Your task to perform on an android device: turn pop-ups off in chrome Image 0: 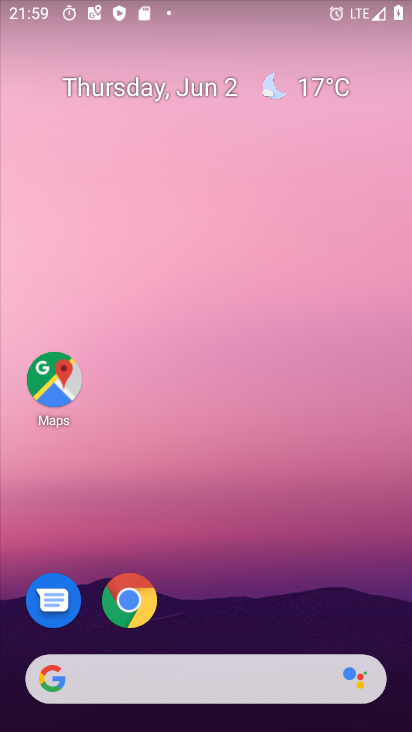
Step 0: drag from (343, 619) to (319, 200)
Your task to perform on an android device: turn pop-ups off in chrome Image 1: 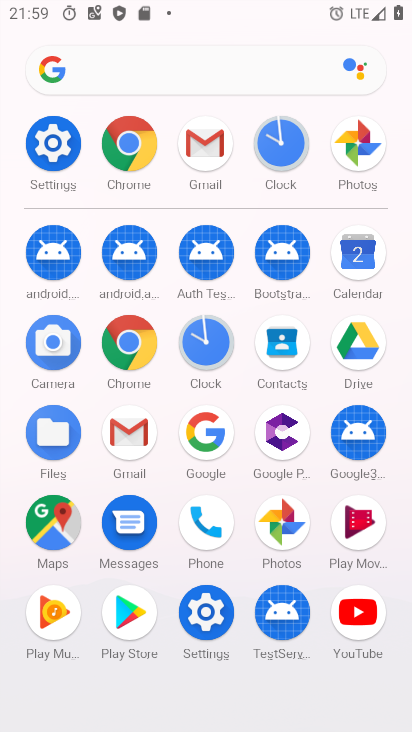
Step 1: click (144, 355)
Your task to perform on an android device: turn pop-ups off in chrome Image 2: 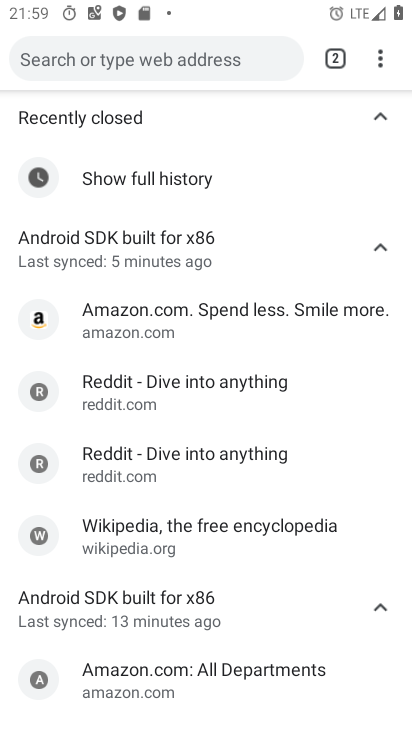
Step 2: click (385, 62)
Your task to perform on an android device: turn pop-ups off in chrome Image 3: 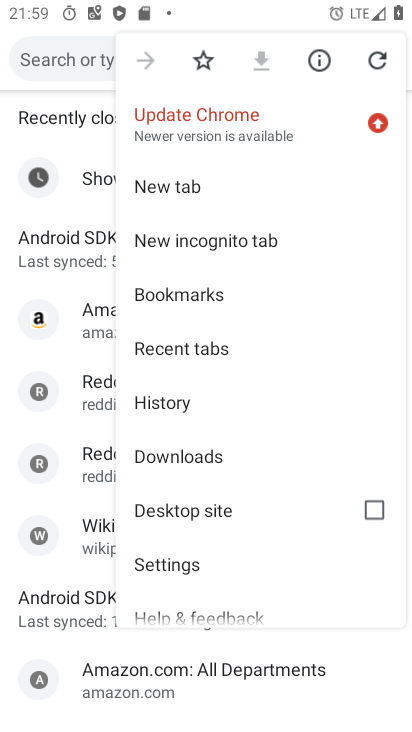
Step 3: drag from (277, 447) to (281, 366)
Your task to perform on an android device: turn pop-ups off in chrome Image 4: 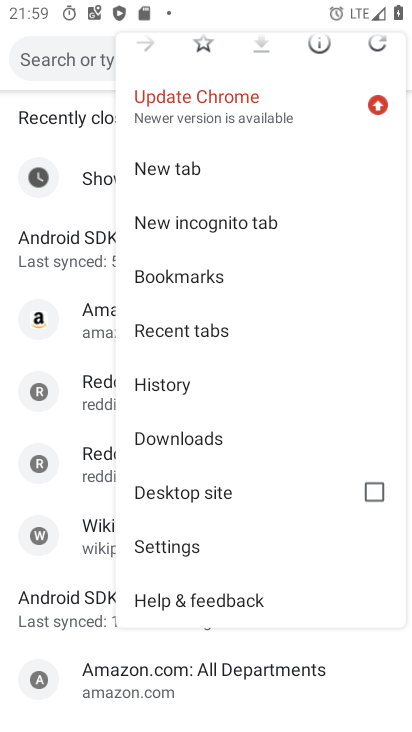
Step 4: click (188, 564)
Your task to perform on an android device: turn pop-ups off in chrome Image 5: 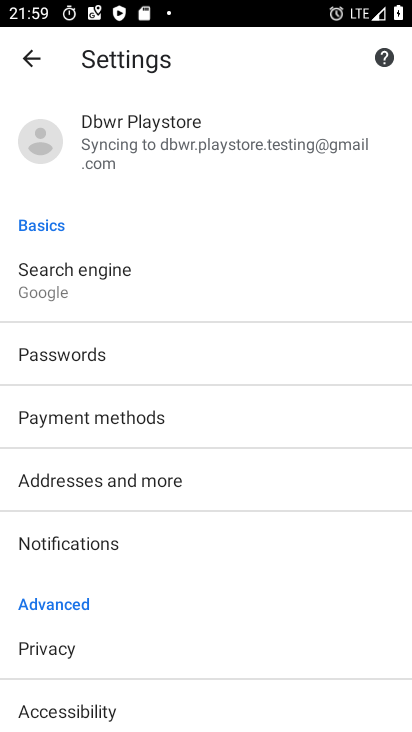
Step 5: drag from (241, 531) to (266, 474)
Your task to perform on an android device: turn pop-ups off in chrome Image 6: 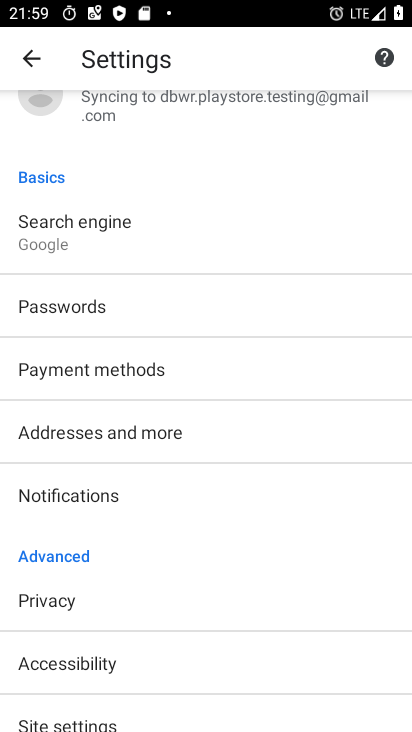
Step 6: drag from (268, 526) to (282, 428)
Your task to perform on an android device: turn pop-ups off in chrome Image 7: 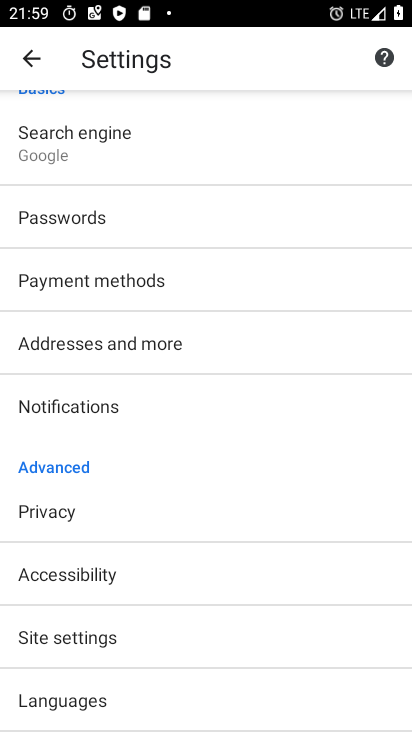
Step 7: drag from (275, 530) to (281, 477)
Your task to perform on an android device: turn pop-ups off in chrome Image 8: 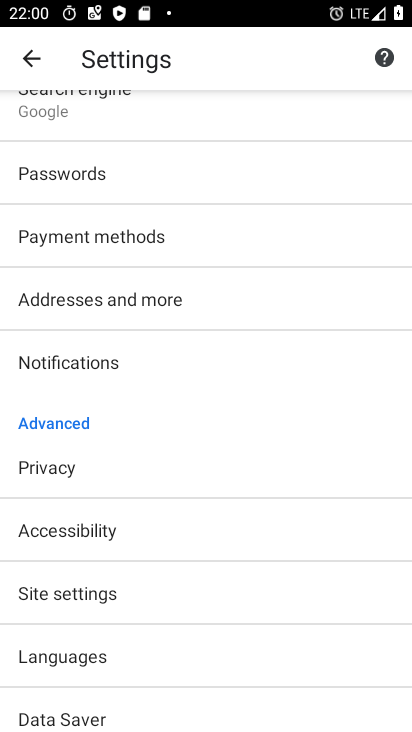
Step 8: click (211, 599)
Your task to perform on an android device: turn pop-ups off in chrome Image 9: 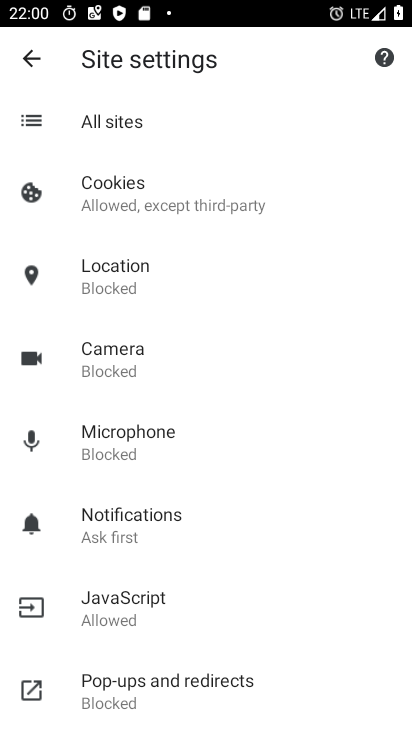
Step 9: drag from (265, 583) to (280, 457)
Your task to perform on an android device: turn pop-ups off in chrome Image 10: 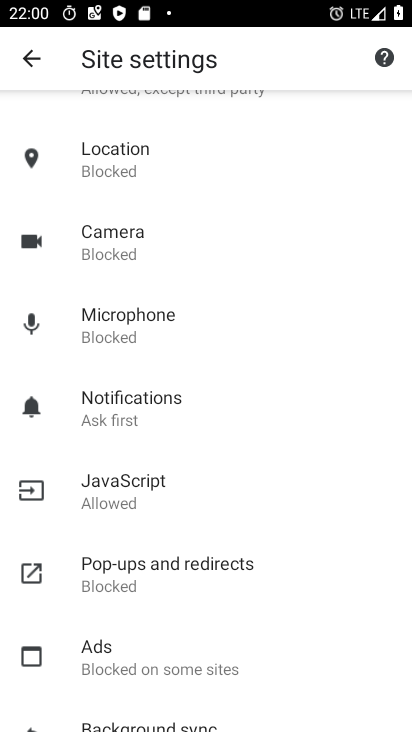
Step 10: drag from (288, 600) to (299, 465)
Your task to perform on an android device: turn pop-ups off in chrome Image 11: 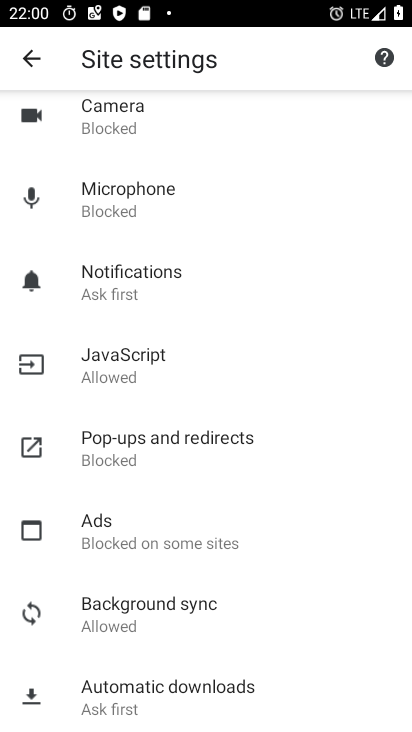
Step 11: drag from (294, 558) to (301, 520)
Your task to perform on an android device: turn pop-ups off in chrome Image 12: 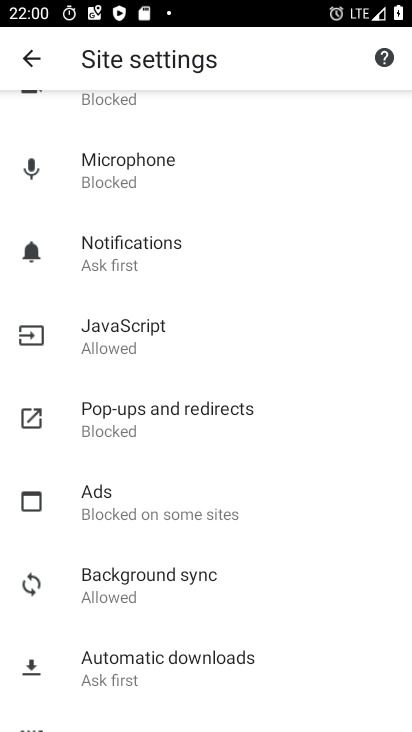
Step 12: click (309, 527)
Your task to perform on an android device: turn pop-ups off in chrome Image 13: 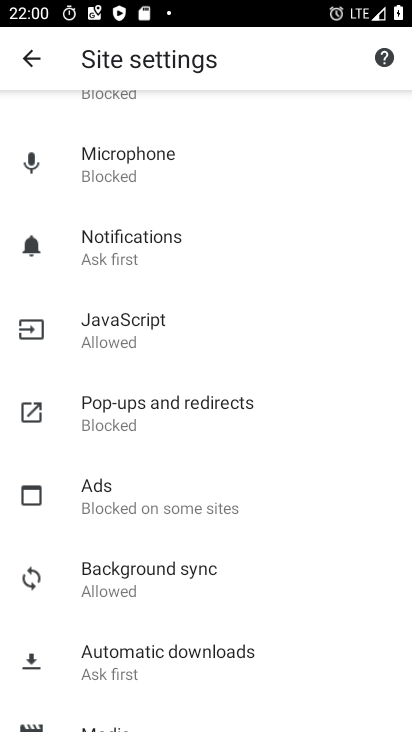
Step 13: click (202, 399)
Your task to perform on an android device: turn pop-ups off in chrome Image 14: 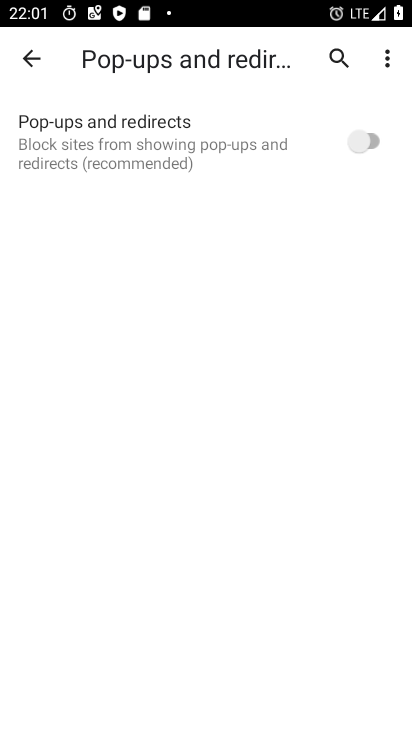
Step 14: press home button
Your task to perform on an android device: turn pop-ups off in chrome Image 15: 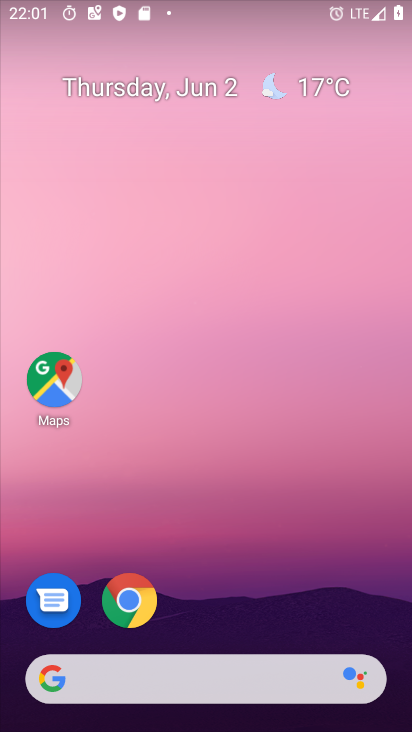
Step 15: drag from (332, 623) to (307, 208)
Your task to perform on an android device: turn pop-ups off in chrome Image 16: 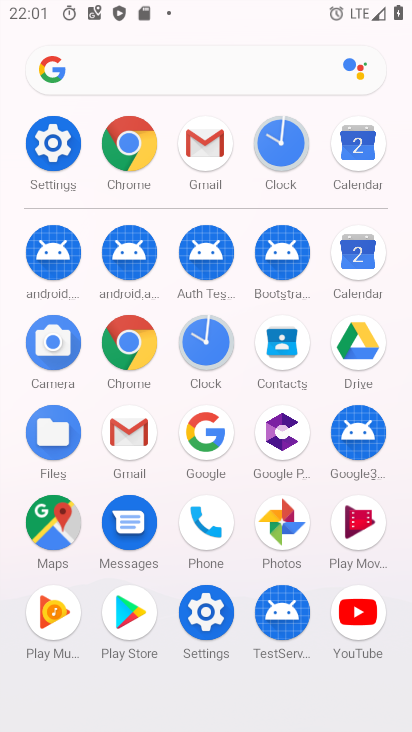
Step 16: click (125, 336)
Your task to perform on an android device: turn pop-ups off in chrome Image 17: 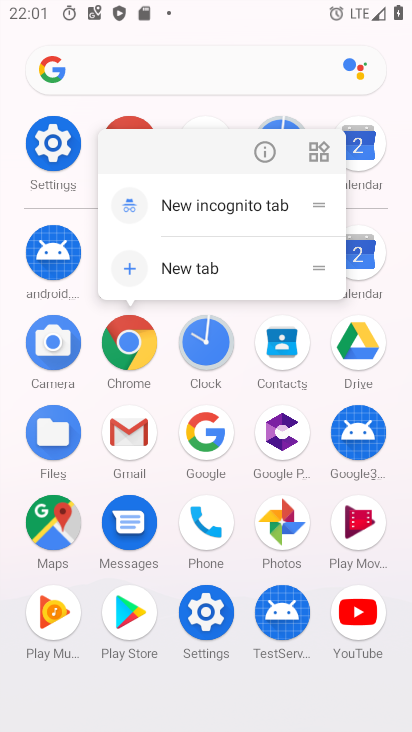
Step 17: click (126, 365)
Your task to perform on an android device: turn pop-ups off in chrome Image 18: 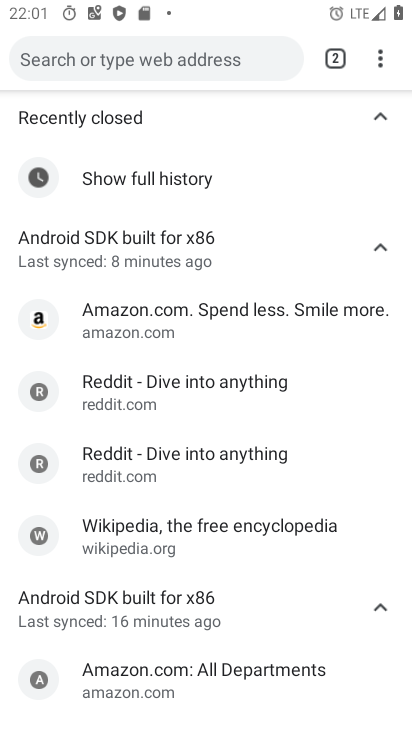
Step 18: click (378, 68)
Your task to perform on an android device: turn pop-ups off in chrome Image 19: 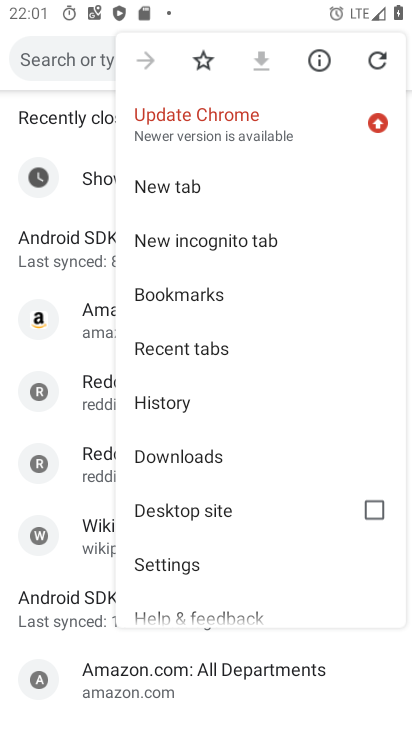
Step 19: drag from (302, 515) to (306, 372)
Your task to perform on an android device: turn pop-ups off in chrome Image 20: 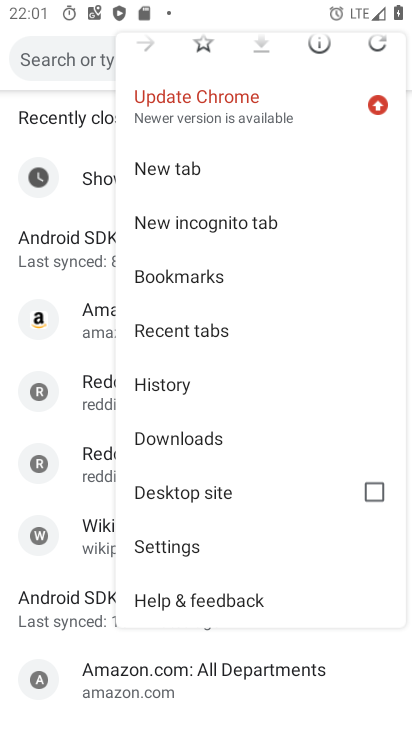
Step 20: click (214, 553)
Your task to perform on an android device: turn pop-ups off in chrome Image 21: 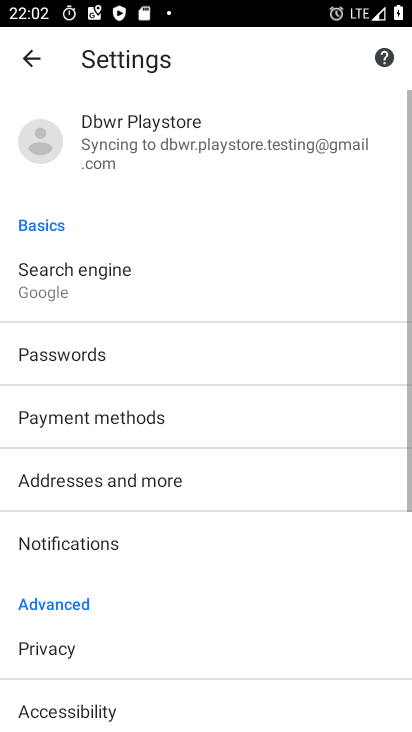
Step 21: drag from (275, 490) to (275, 382)
Your task to perform on an android device: turn pop-ups off in chrome Image 22: 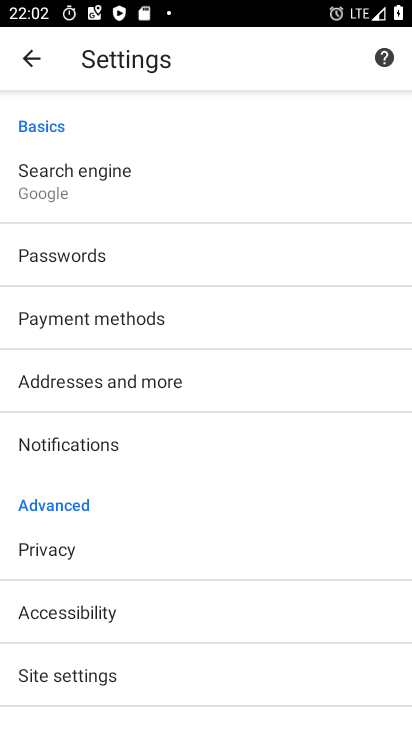
Step 22: drag from (266, 516) to (262, 419)
Your task to perform on an android device: turn pop-ups off in chrome Image 23: 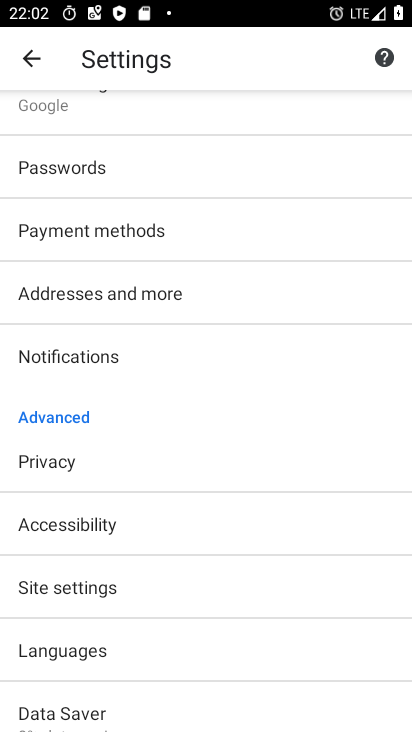
Step 23: drag from (270, 507) to (274, 401)
Your task to perform on an android device: turn pop-ups off in chrome Image 24: 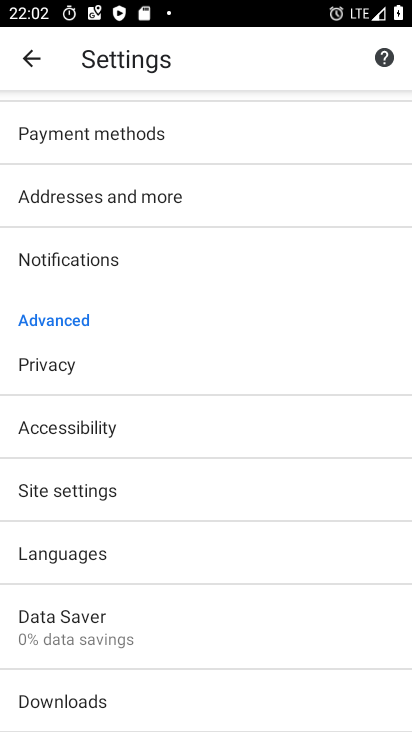
Step 24: click (239, 503)
Your task to perform on an android device: turn pop-ups off in chrome Image 25: 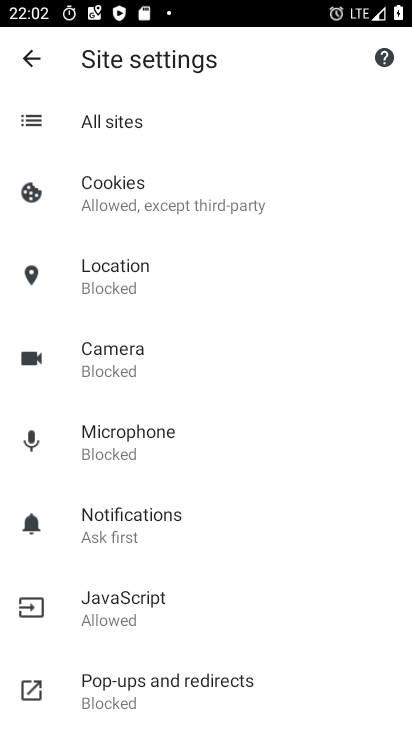
Step 25: drag from (252, 512) to (254, 438)
Your task to perform on an android device: turn pop-ups off in chrome Image 26: 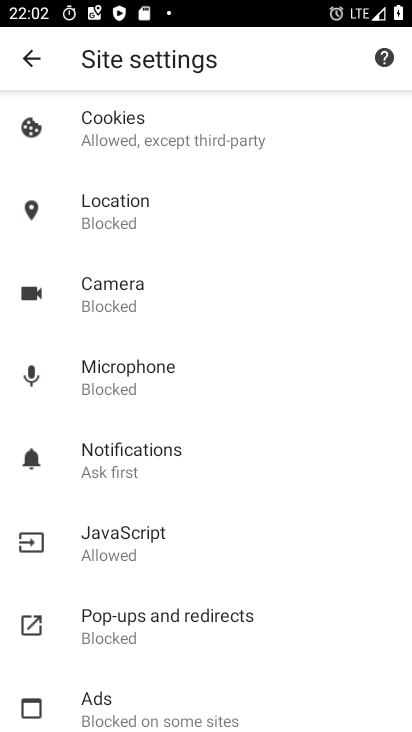
Step 26: drag from (263, 495) to (265, 458)
Your task to perform on an android device: turn pop-ups off in chrome Image 27: 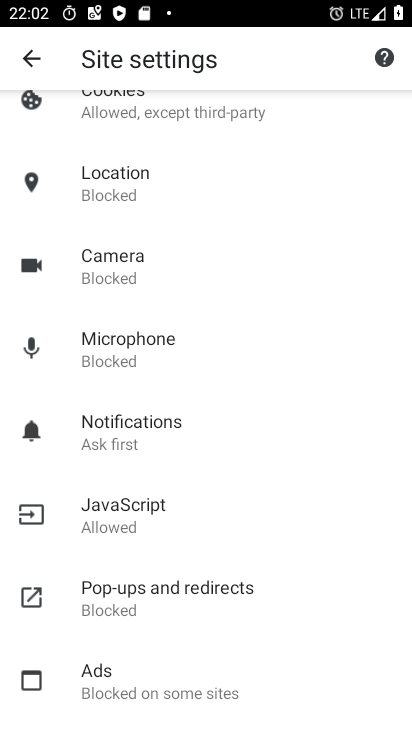
Step 27: click (249, 604)
Your task to perform on an android device: turn pop-ups off in chrome Image 28: 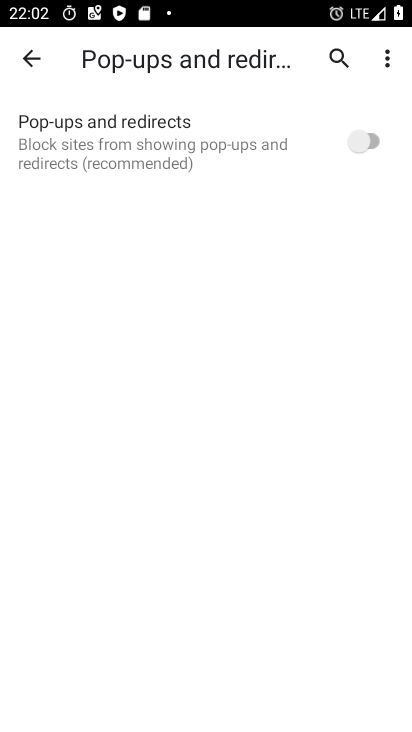
Step 28: task complete